Your task to perform on an android device: Go to Android settings Image 0: 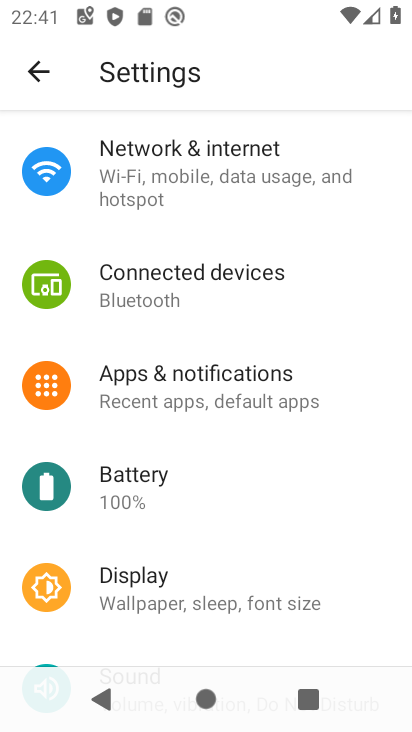
Step 0: press home button
Your task to perform on an android device: Go to Android settings Image 1: 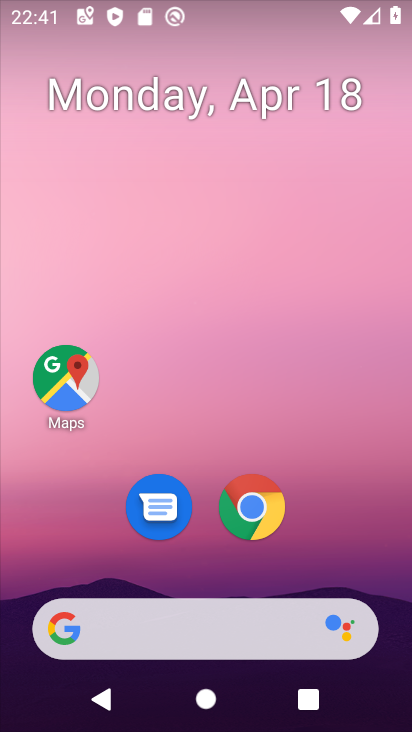
Step 1: drag from (335, 500) to (348, 77)
Your task to perform on an android device: Go to Android settings Image 2: 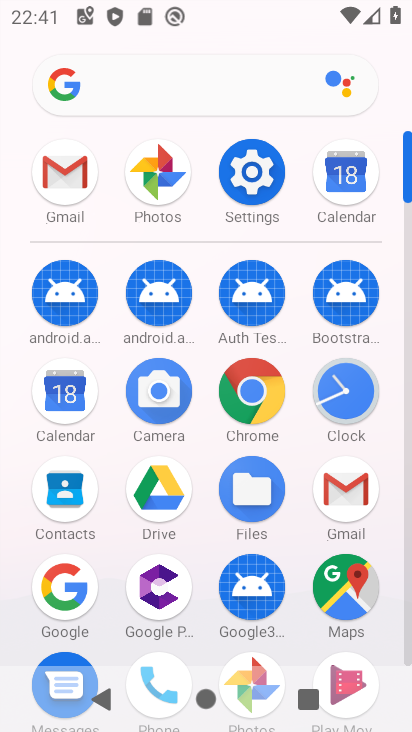
Step 2: click (267, 182)
Your task to perform on an android device: Go to Android settings Image 3: 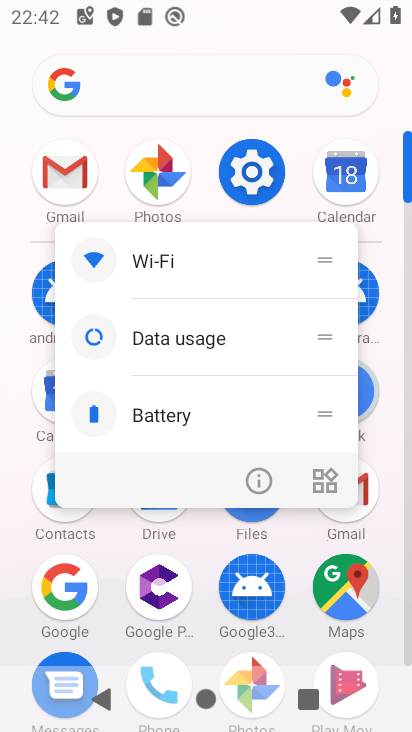
Step 3: click (267, 183)
Your task to perform on an android device: Go to Android settings Image 4: 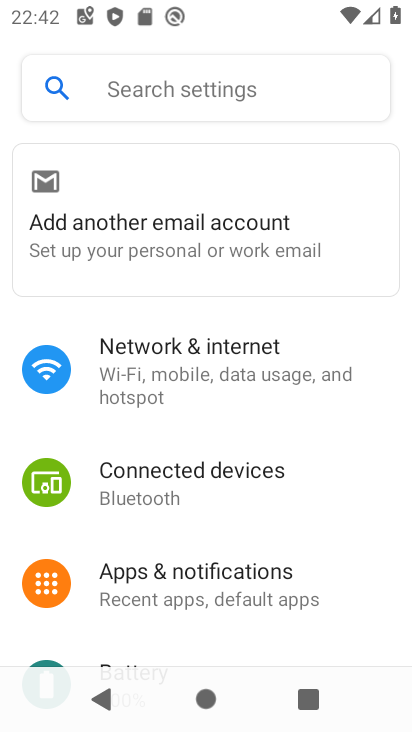
Step 4: task complete